Your task to perform on an android device: How much does the new iPad cost? Image 0: 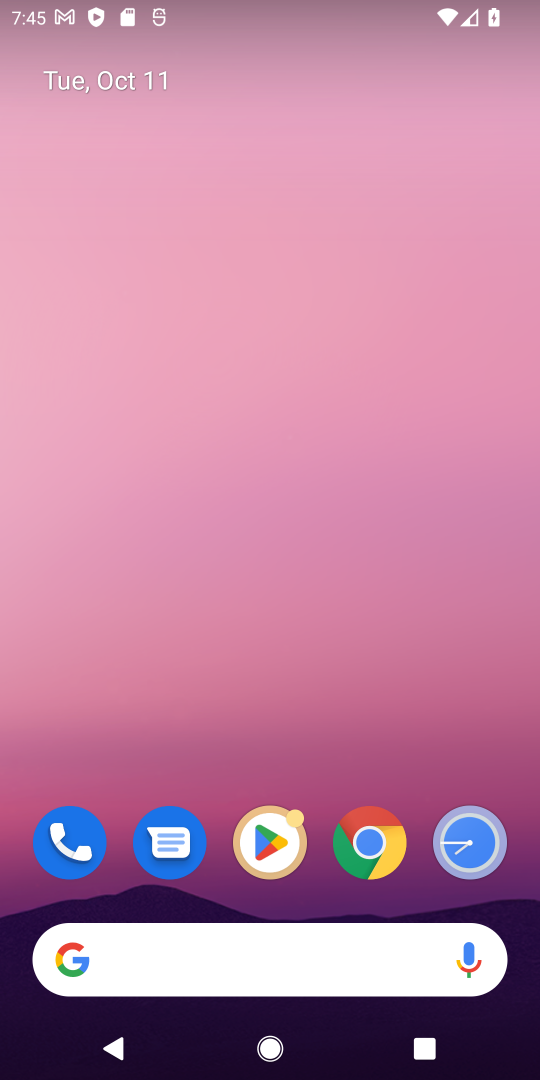
Step 0: click (369, 859)
Your task to perform on an android device: How much does the new iPad cost? Image 1: 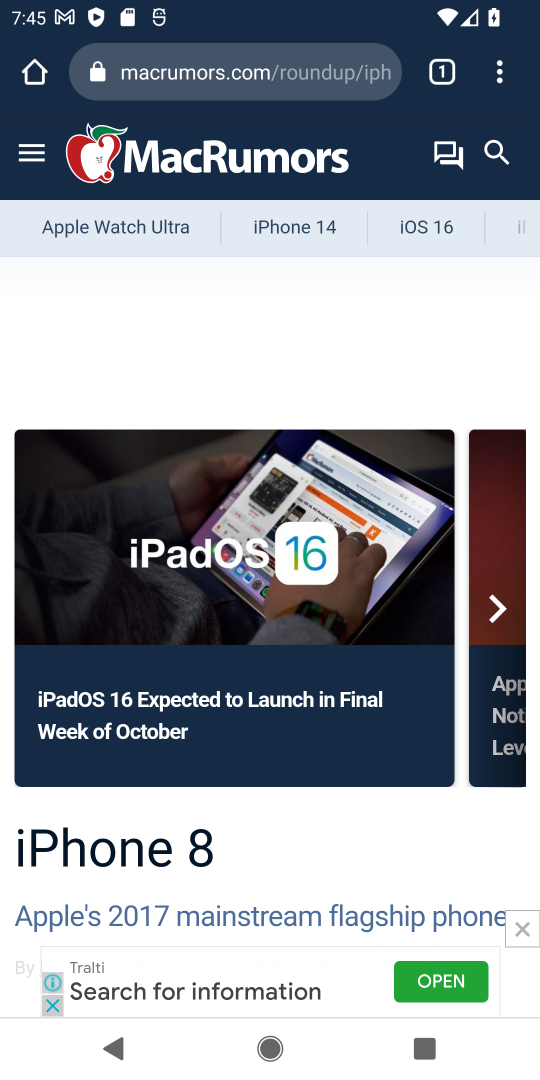
Step 1: click (244, 80)
Your task to perform on an android device: How much does the new iPad cost? Image 2: 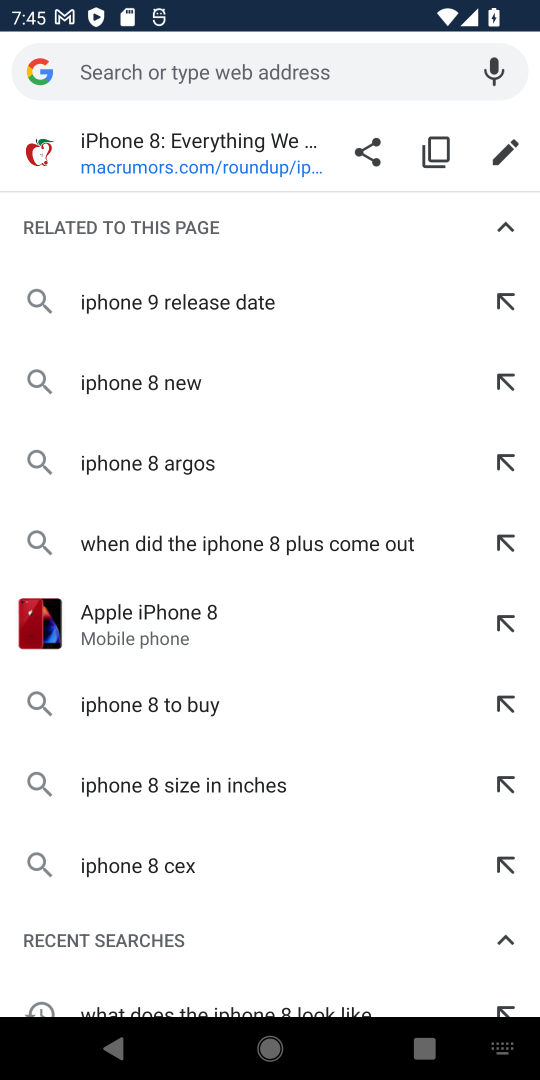
Step 2: type "how much does new ipad cost"
Your task to perform on an android device: How much does the new iPad cost? Image 3: 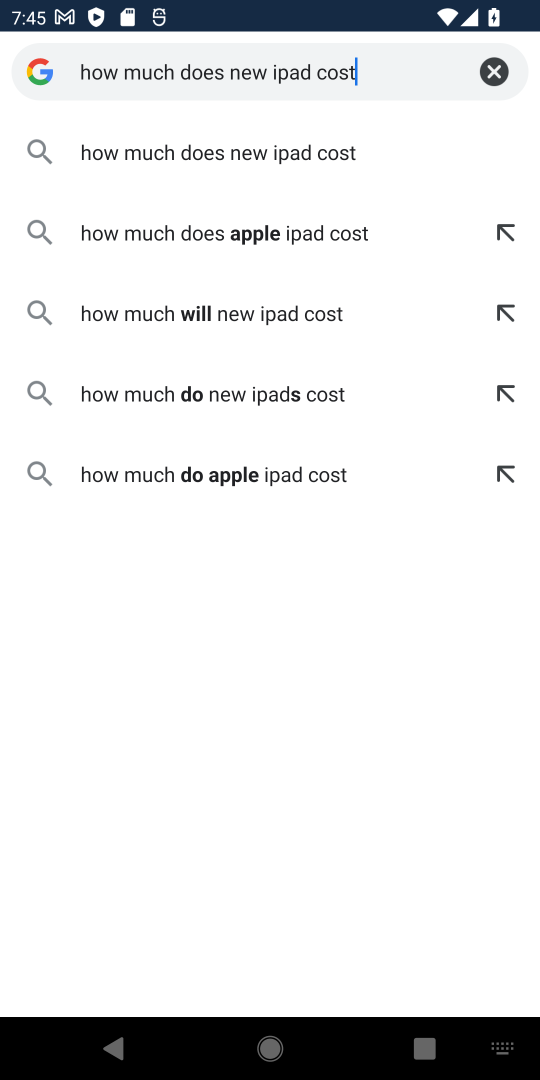
Step 3: click (308, 145)
Your task to perform on an android device: How much does the new iPad cost? Image 4: 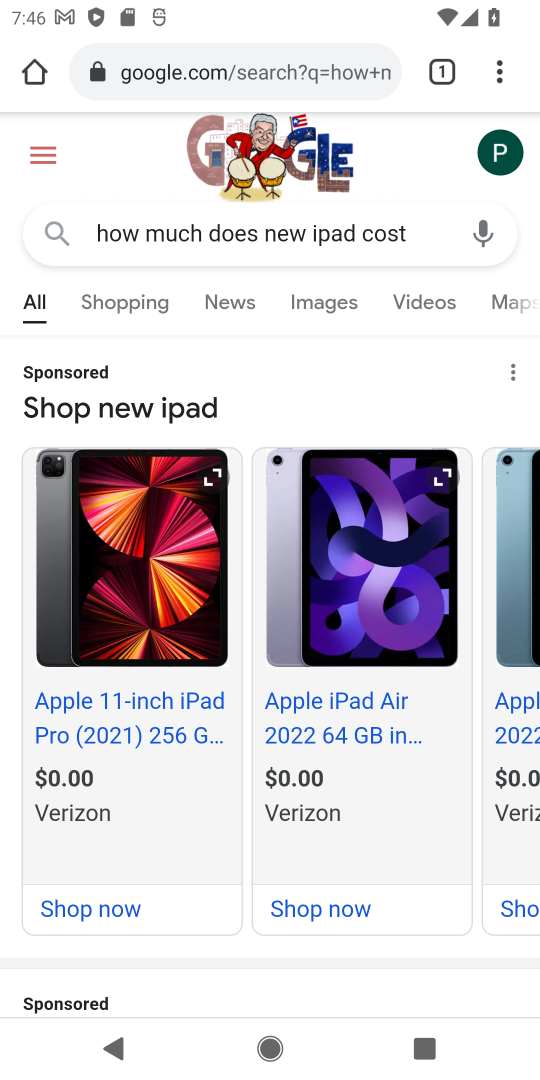
Step 4: drag from (218, 814) to (240, 234)
Your task to perform on an android device: How much does the new iPad cost? Image 5: 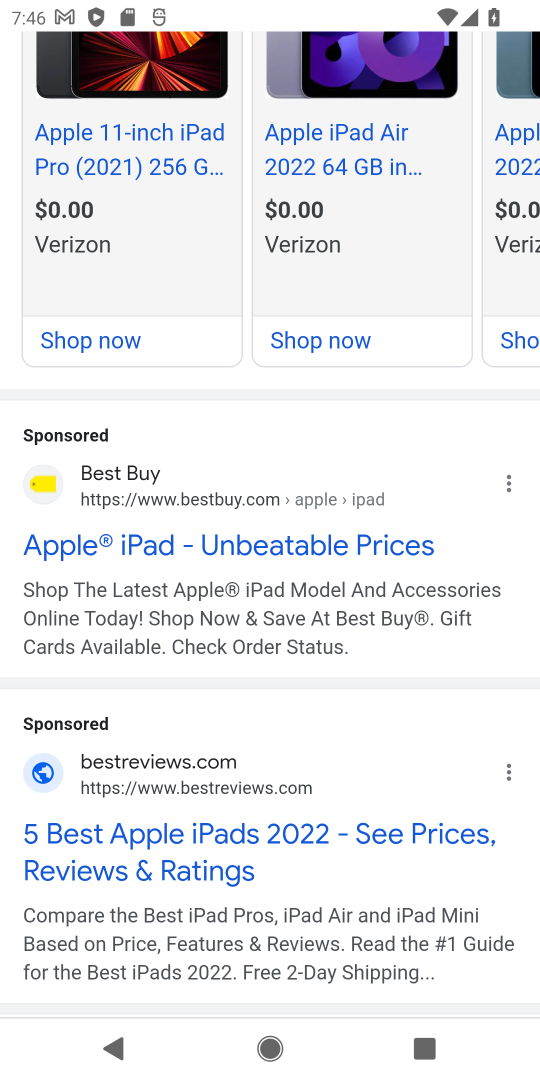
Step 5: drag from (282, 742) to (394, 285)
Your task to perform on an android device: How much does the new iPad cost? Image 6: 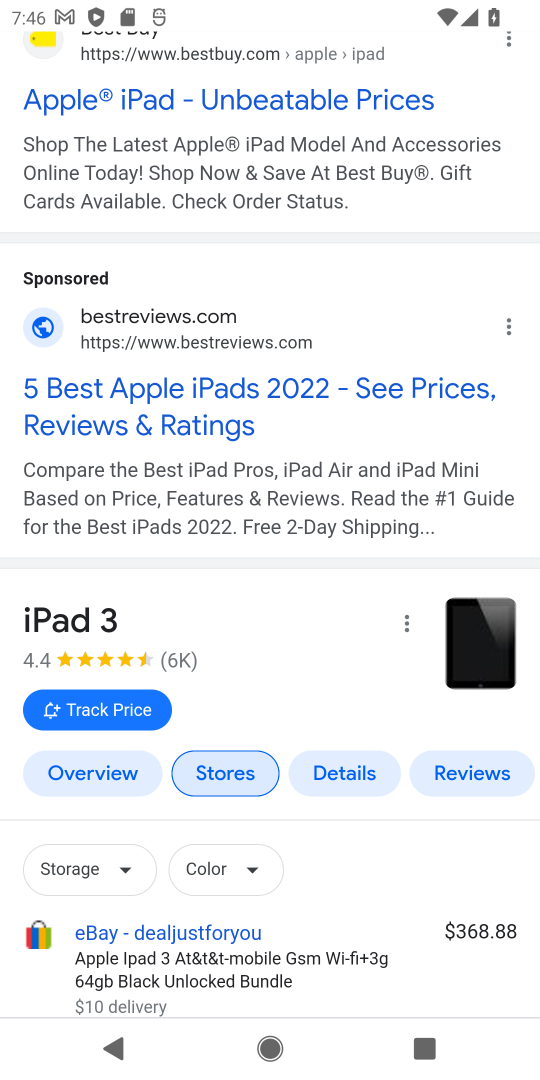
Step 6: drag from (380, 736) to (364, 355)
Your task to perform on an android device: How much does the new iPad cost? Image 7: 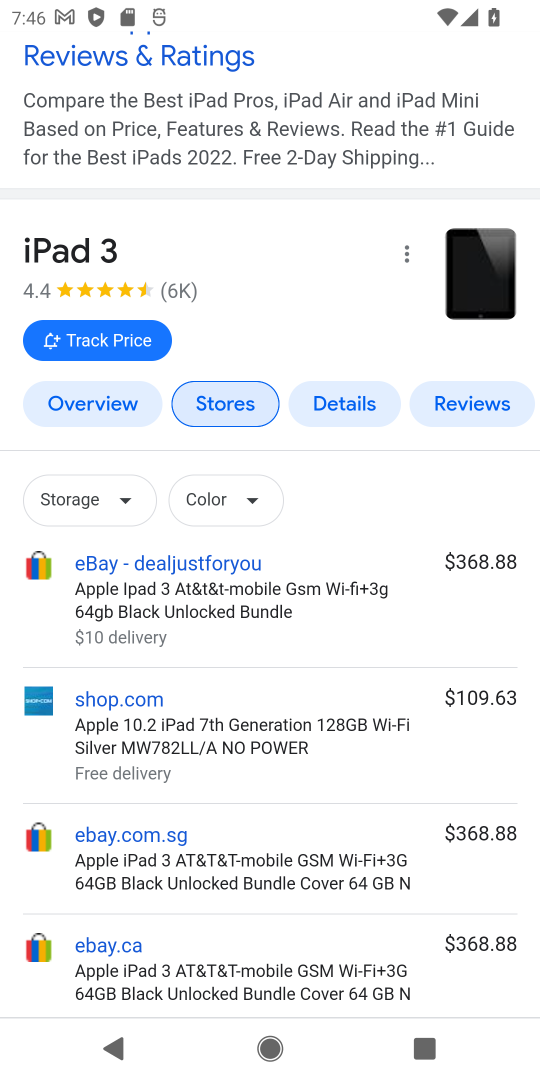
Step 7: drag from (386, 527) to (372, 264)
Your task to perform on an android device: How much does the new iPad cost? Image 8: 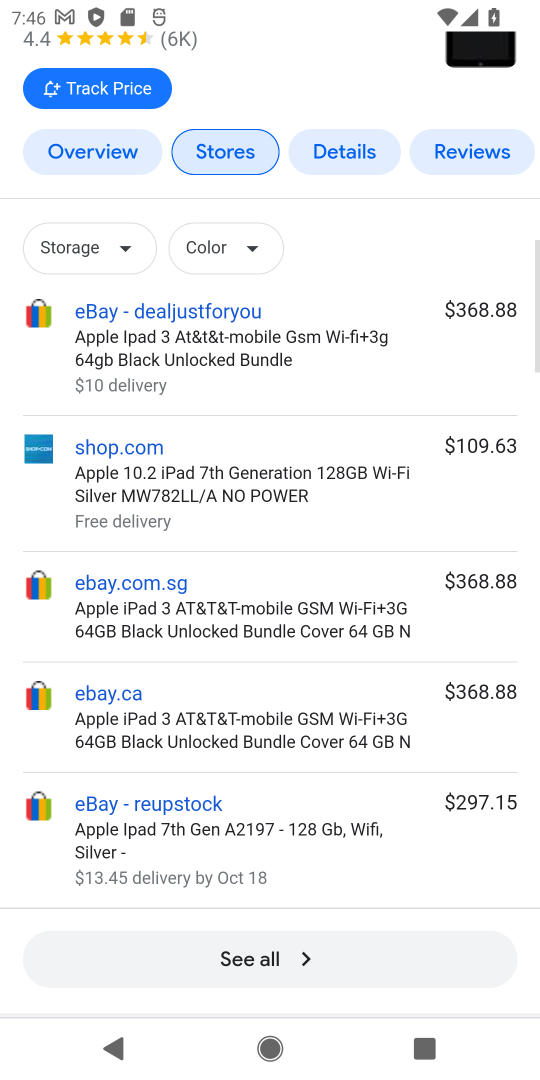
Step 8: drag from (252, 822) to (300, 292)
Your task to perform on an android device: How much does the new iPad cost? Image 9: 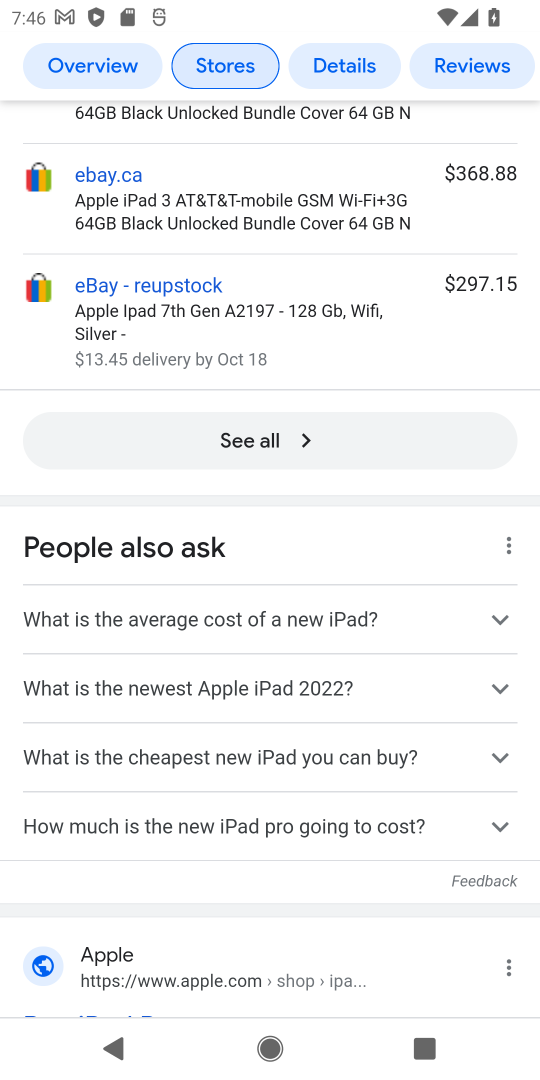
Step 9: drag from (311, 776) to (297, 326)
Your task to perform on an android device: How much does the new iPad cost? Image 10: 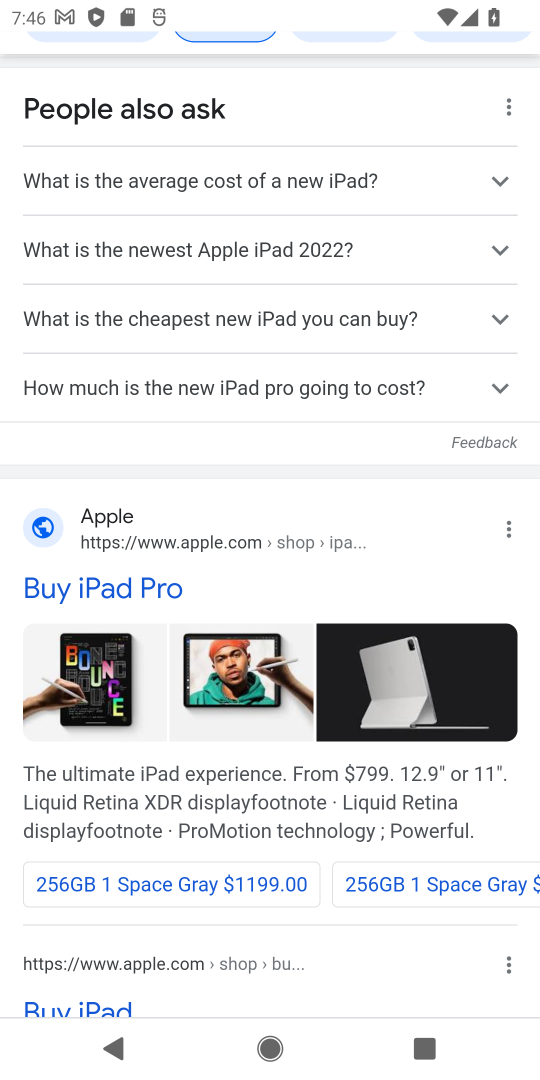
Step 10: click (199, 389)
Your task to perform on an android device: How much does the new iPad cost? Image 11: 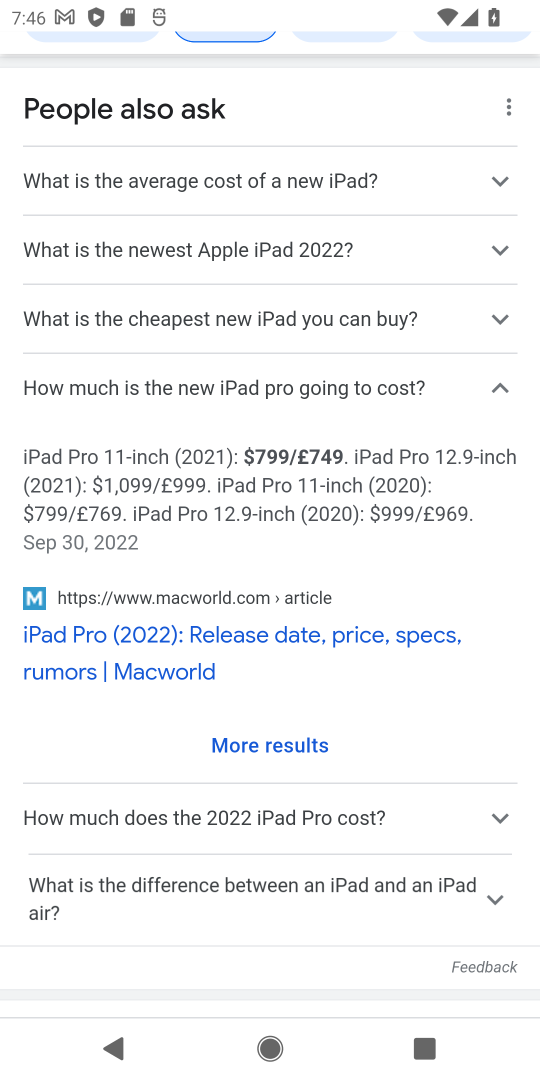
Step 11: task complete